Your task to perform on an android device: Open my contact list Image 0: 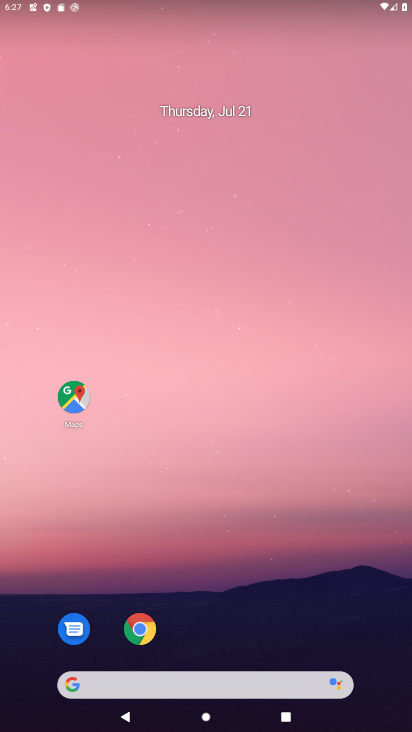
Step 0: drag from (195, 687) to (186, 243)
Your task to perform on an android device: Open my contact list Image 1: 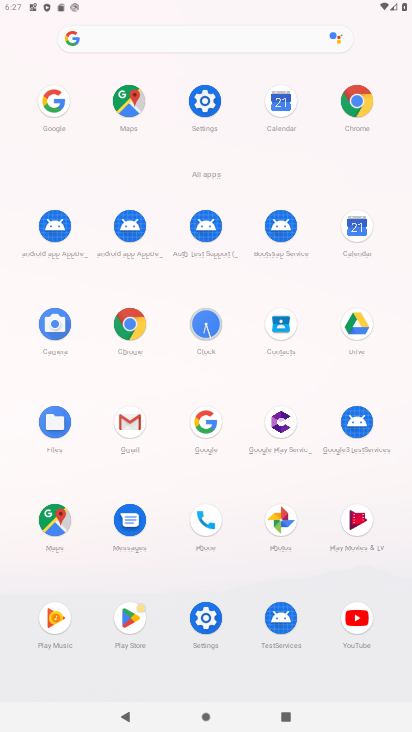
Step 1: click (279, 324)
Your task to perform on an android device: Open my contact list Image 2: 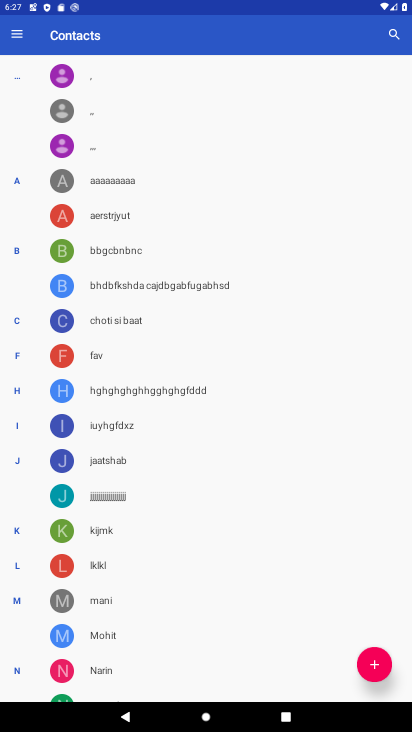
Step 2: task complete